Your task to perform on an android device: allow notifications from all sites in the chrome app Image 0: 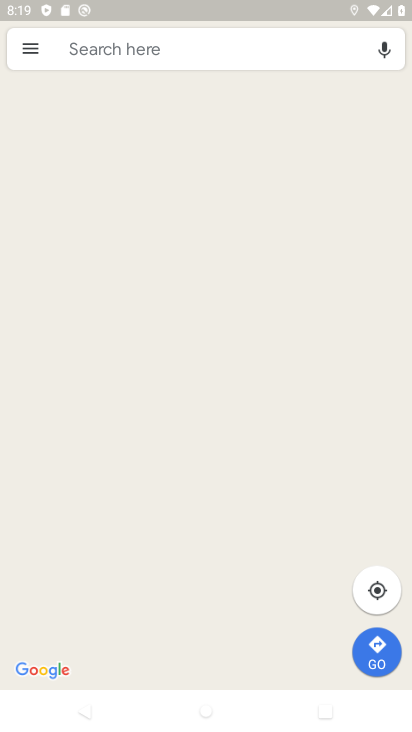
Step 0: press home button
Your task to perform on an android device: allow notifications from all sites in the chrome app Image 1: 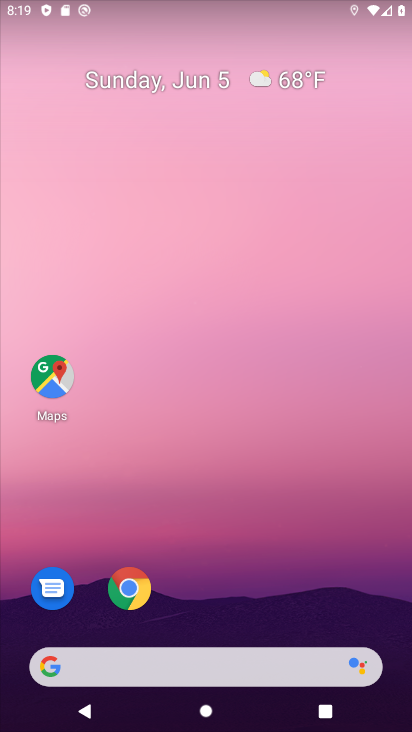
Step 1: click (118, 581)
Your task to perform on an android device: allow notifications from all sites in the chrome app Image 2: 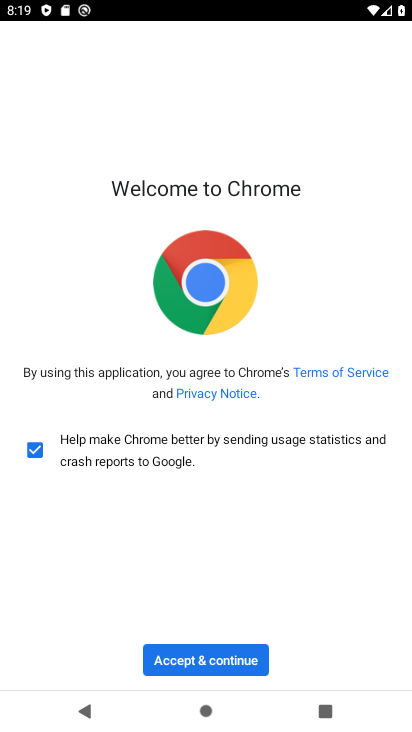
Step 2: click (164, 662)
Your task to perform on an android device: allow notifications from all sites in the chrome app Image 3: 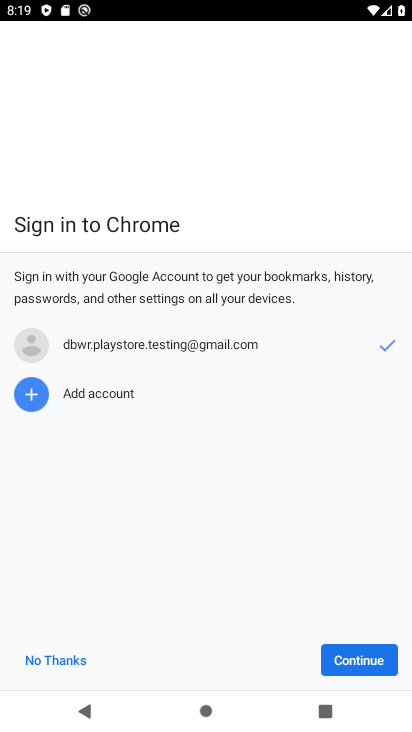
Step 3: click (336, 658)
Your task to perform on an android device: allow notifications from all sites in the chrome app Image 4: 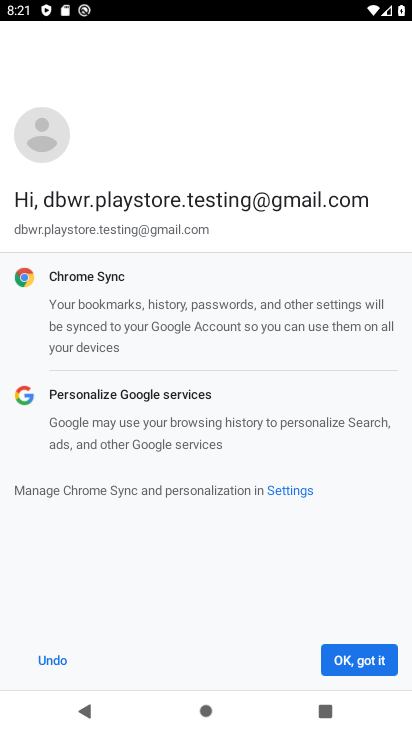
Step 4: press home button
Your task to perform on an android device: allow notifications from all sites in the chrome app Image 5: 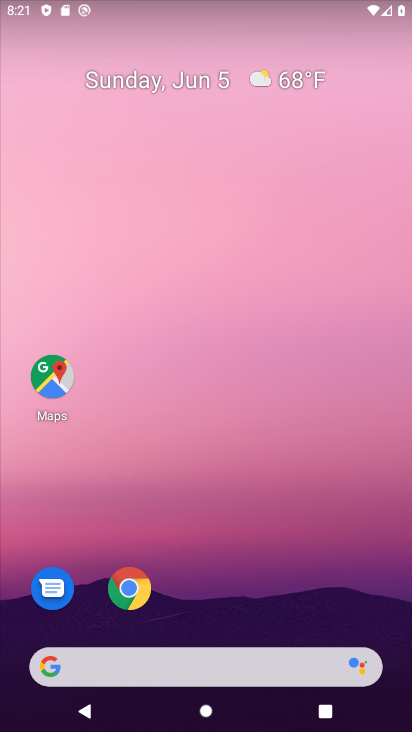
Step 5: click (143, 583)
Your task to perform on an android device: allow notifications from all sites in the chrome app Image 6: 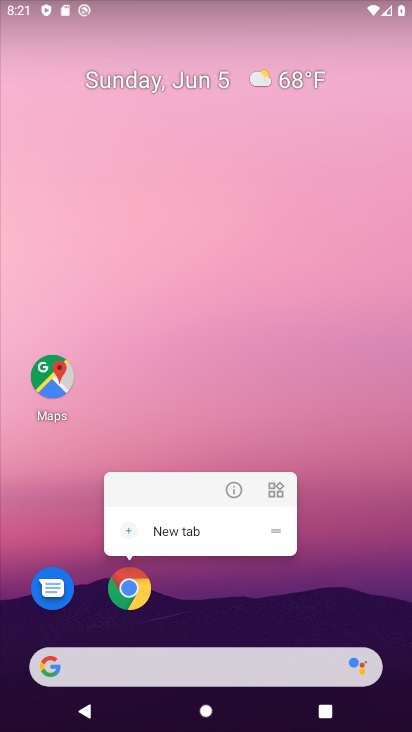
Step 6: click (112, 602)
Your task to perform on an android device: allow notifications from all sites in the chrome app Image 7: 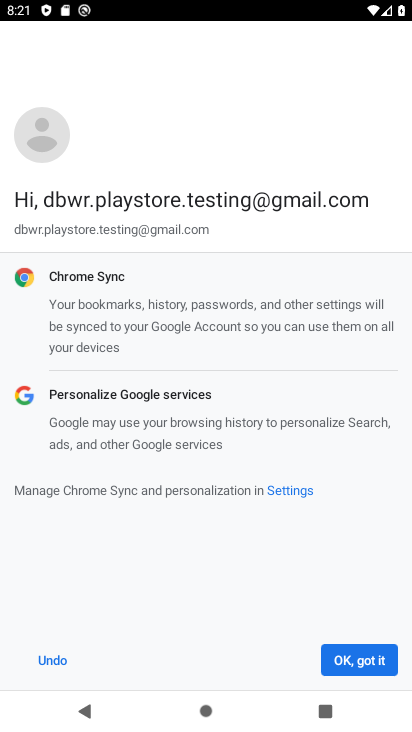
Step 7: click (348, 658)
Your task to perform on an android device: allow notifications from all sites in the chrome app Image 8: 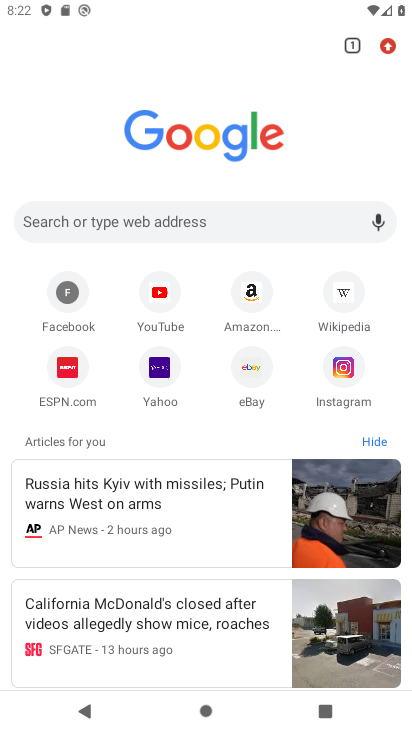
Step 8: click (388, 38)
Your task to perform on an android device: allow notifications from all sites in the chrome app Image 9: 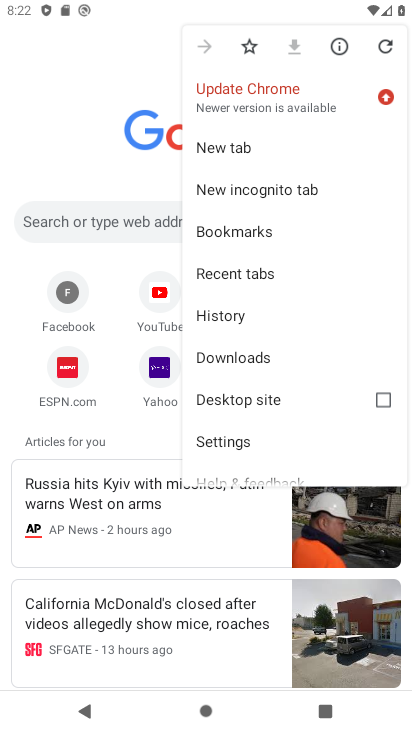
Step 9: click (252, 444)
Your task to perform on an android device: allow notifications from all sites in the chrome app Image 10: 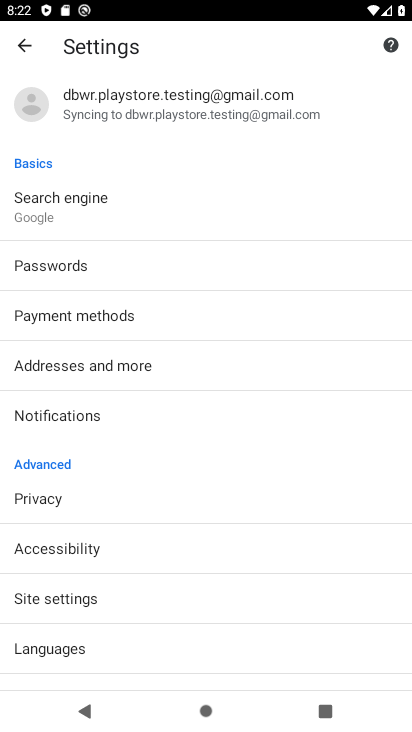
Step 10: click (89, 417)
Your task to perform on an android device: allow notifications from all sites in the chrome app Image 11: 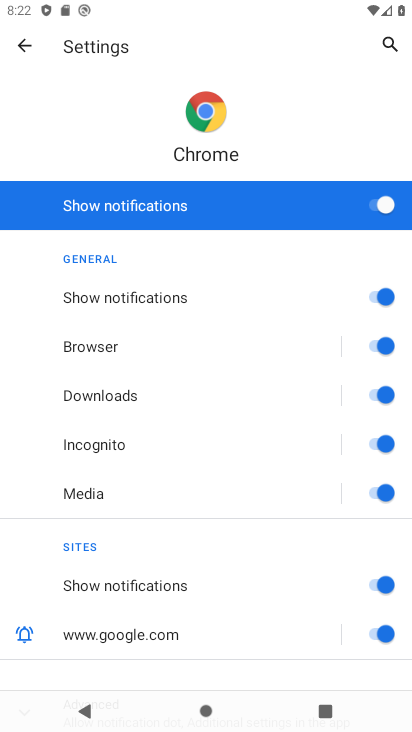
Step 11: task complete